Your task to perform on an android device: Open settings on Google Maps Image 0: 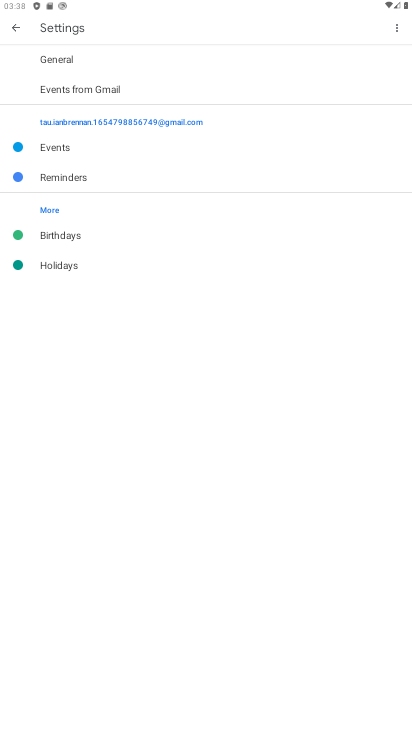
Step 0: press home button
Your task to perform on an android device: Open settings on Google Maps Image 1: 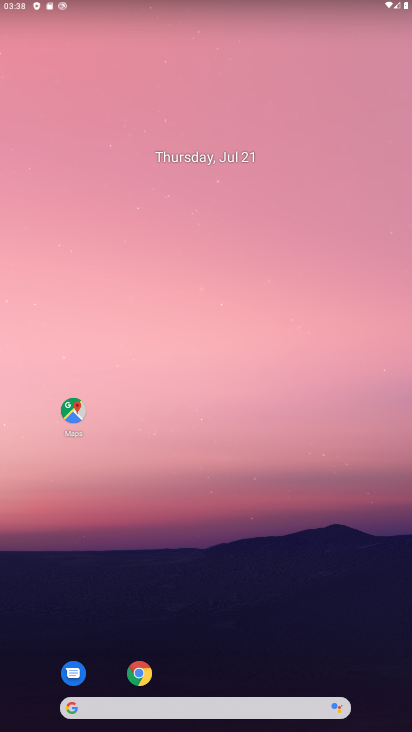
Step 1: drag from (277, 622) to (224, 43)
Your task to perform on an android device: Open settings on Google Maps Image 2: 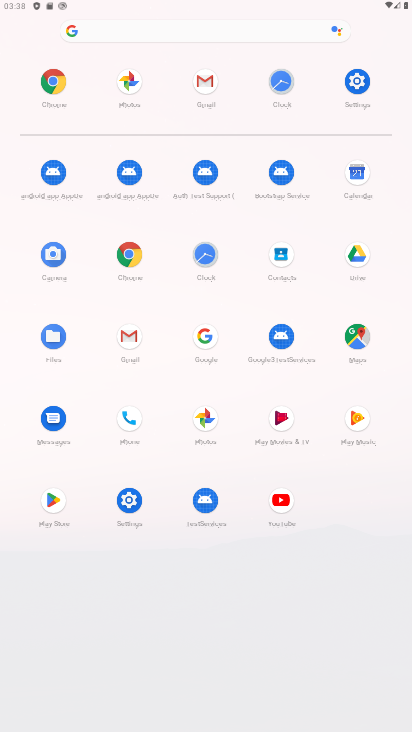
Step 2: click (364, 338)
Your task to perform on an android device: Open settings on Google Maps Image 3: 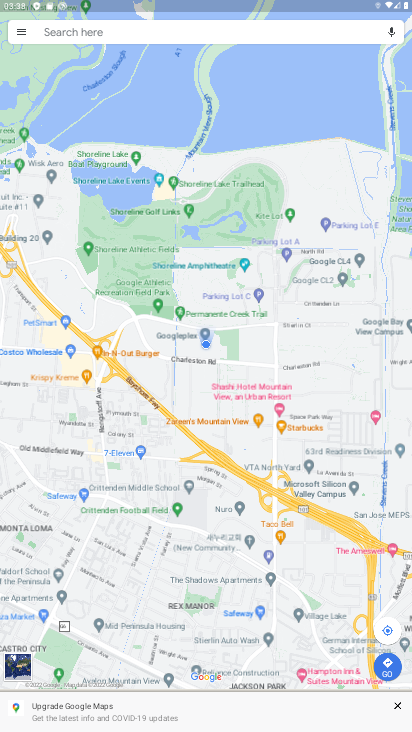
Step 3: click (21, 29)
Your task to perform on an android device: Open settings on Google Maps Image 4: 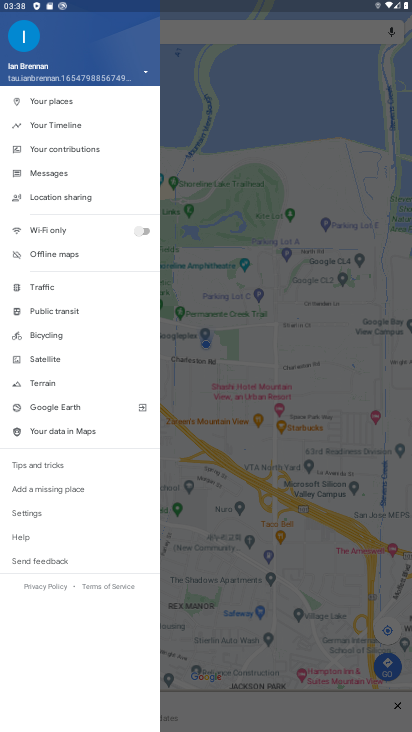
Step 4: click (30, 511)
Your task to perform on an android device: Open settings on Google Maps Image 5: 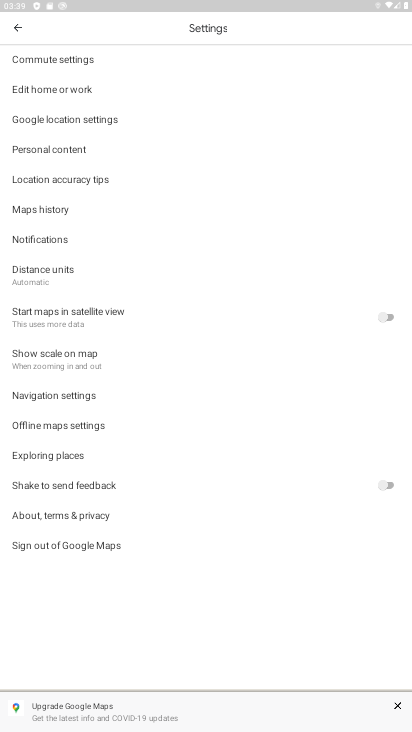
Step 5: task complete